Your task to perform on an android device: What's on my calendar today? Image 0: 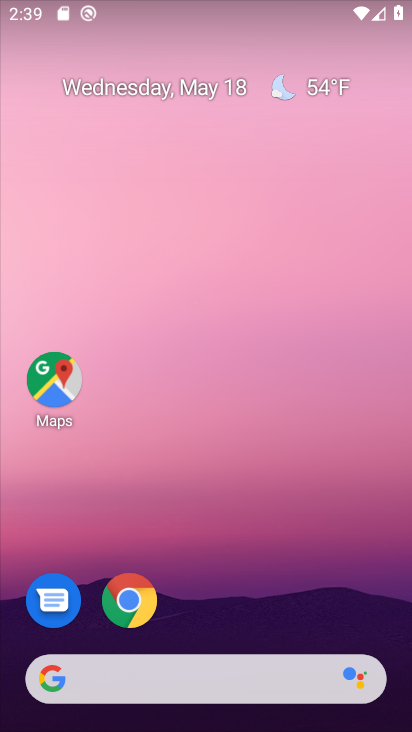
Step 0: drag from (227, 629) to (248, 109)
Your task to perform on an android device: What's on my calendar today? Image 1: 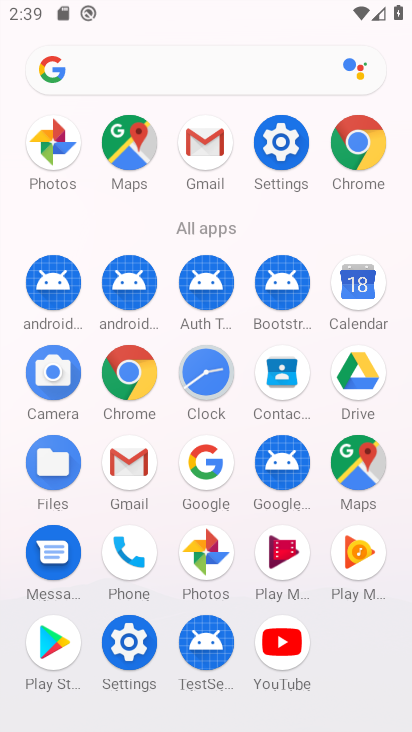
Step 1: click (355, 284)
Your task to perform on an android device: What's on my calendar today? Image 2: 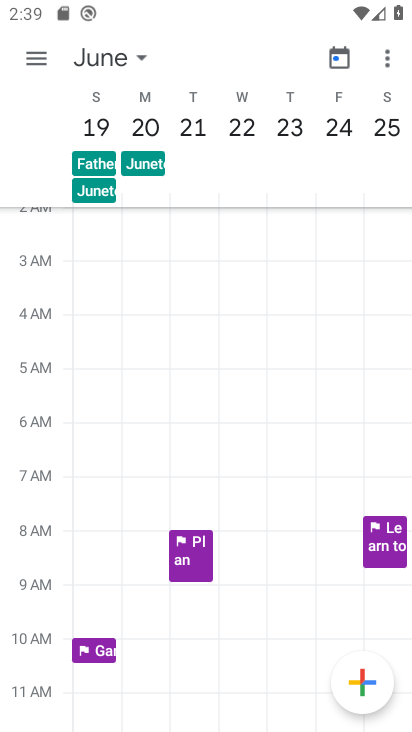
Step 2: drag from (94, 110) to (340, 130)
Your task to perform on an android device: What's on my calendar today? Image 3: 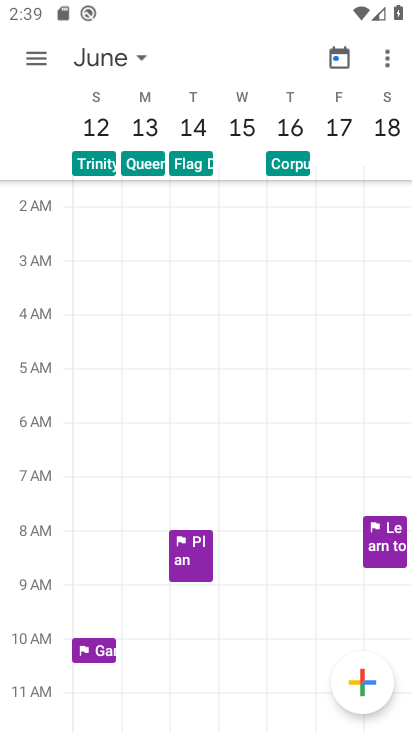
Step 3: click (101, 58)
Your task to perform on an android device: What's on my calendar today? Image 4: 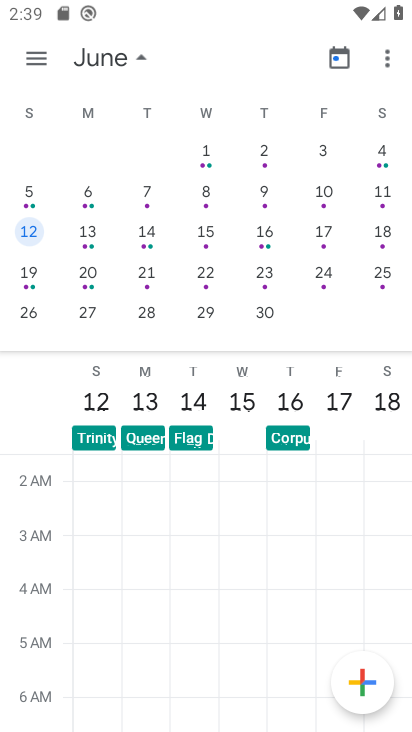
Step 4: drag from (83, 229) to (400, 242)
Your task to perform on an android device: What's on my calendar today? Image 5: 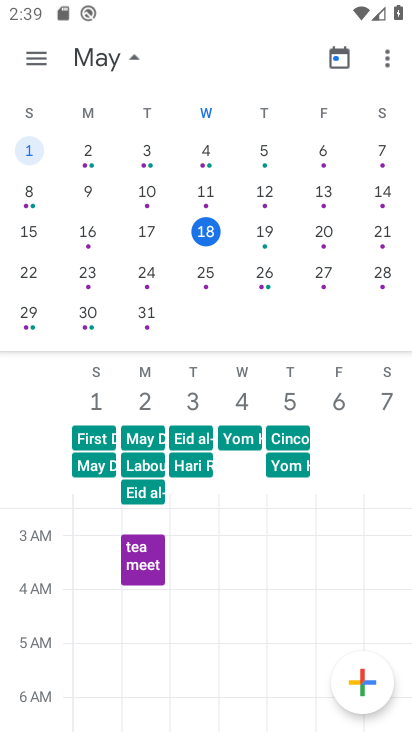
Step 5: click (198, 234)
Your task to perform on an android device: What's on my calendar today? Image 6: 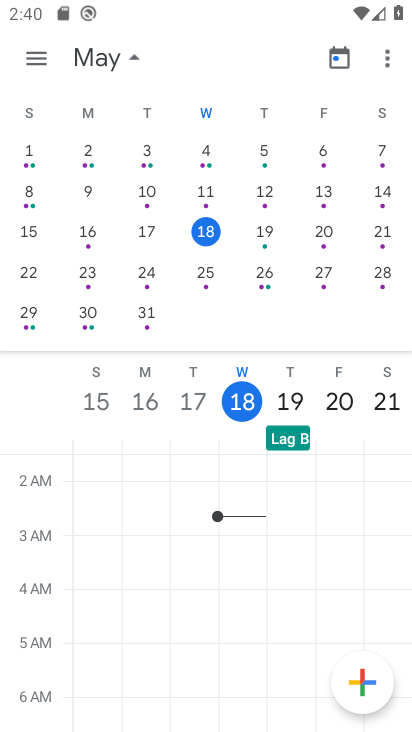
Step 6: click (31, 54)
Your task to perform on an android device: What's on my calendar today? Image 7: 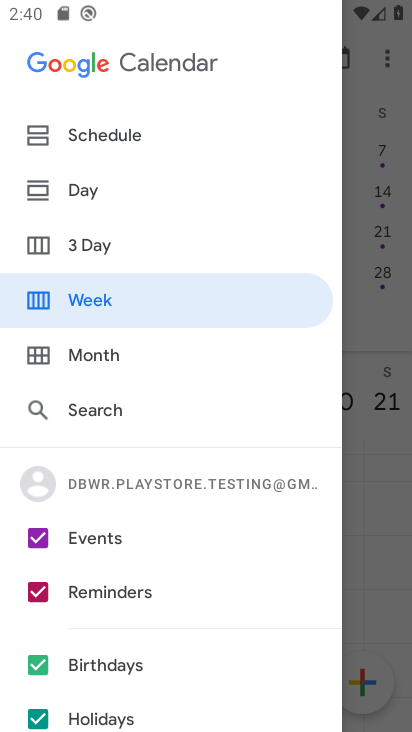
Step 7: click (106, 202)
Your task to perform on an android device: What's on my calendar today? Image 8: 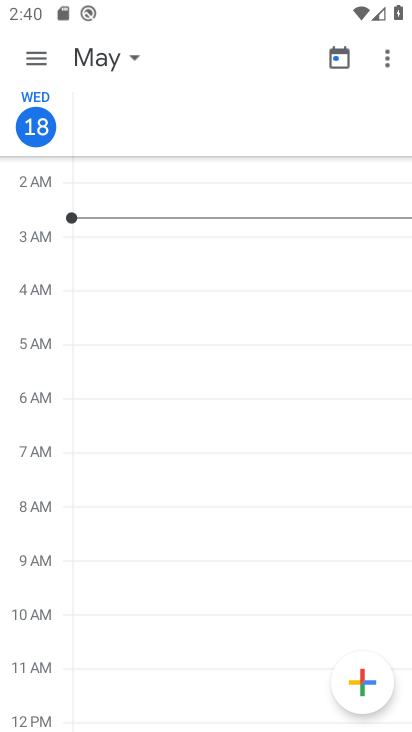
Step 8: task complete